Your task to perform on an android device: show emergency info Image 0: 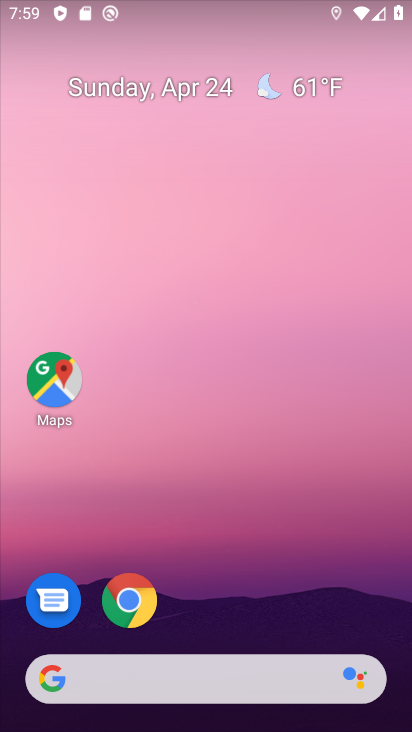
Step 0: drag from (215, 717) to (178, 170)
Your task to perform on an android device: show emergency info Image 1: 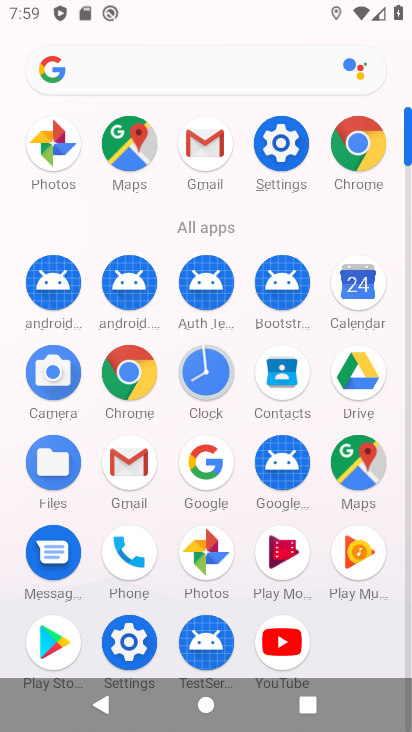
Step 1: click (287, 150)
Your task to perform on an android device: show emergency info Image 2: 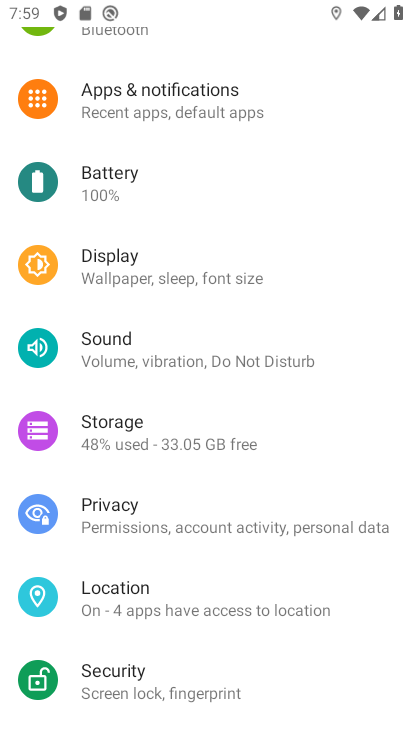
Step 2: drag from (219, 609) to (207, 143)
Your task to perform on an android device: show emergency info Image 3: 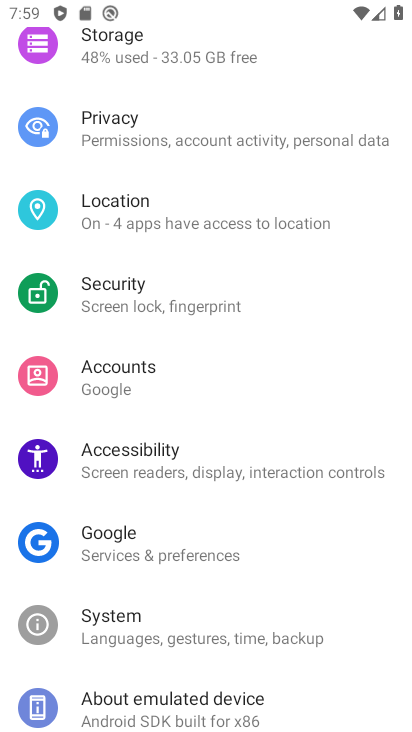
Step 3: drag from (181, 660) to (186, 215)
Your task to perform on an android device: show emergency info Image 4: 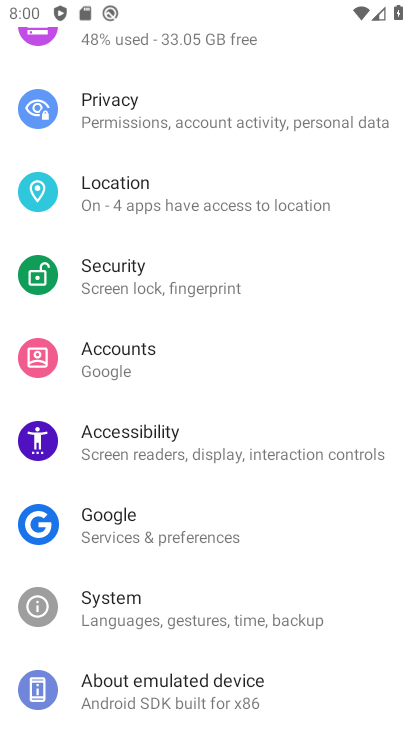
Step 4: click (174, 678)
Your task to perform on an android device: show emergency info Image 5: 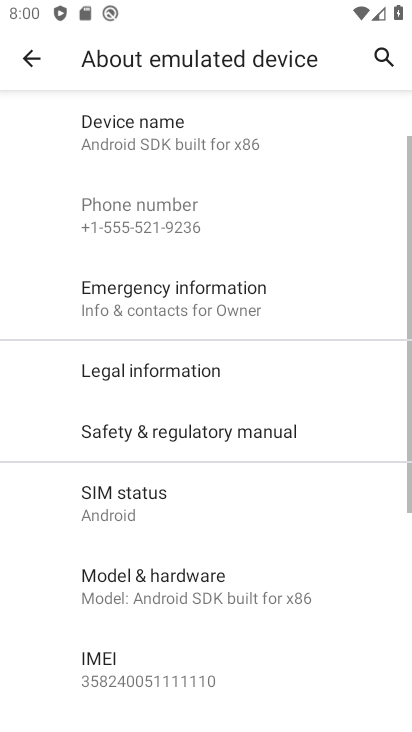
Step 5: click (201, 294)
Your task to perform on an android device: show emergency info Image 6: 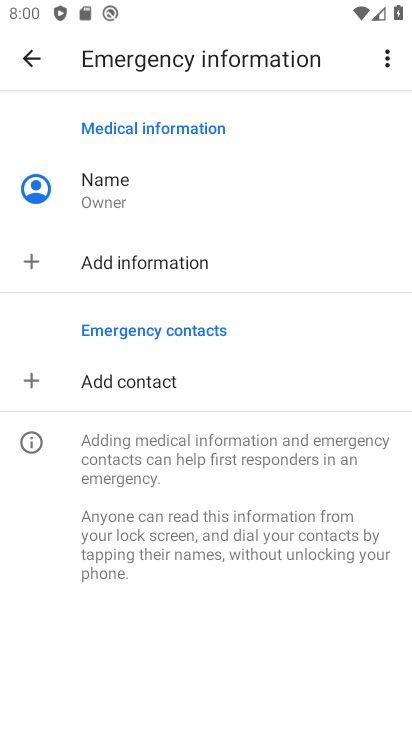
Step 6: task complete